Your task to perform on an android device: move a message to another label in the gmail app Image 0: 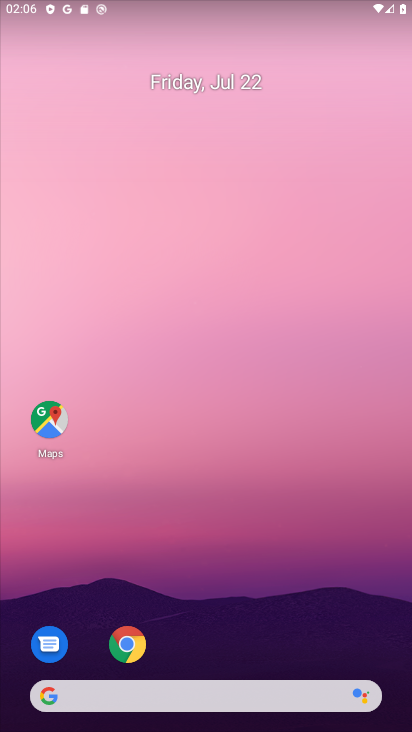
Step 0: drag from (184, 705) to (0, 42)
Your task to perform on an android device: move a message to another label in the gmail app Image 1: 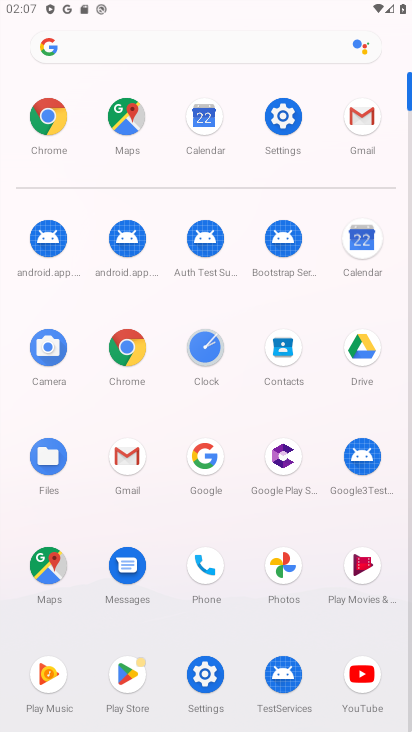
Step 1: click (362, 129)
Your task to perform on an android device: move a message to another label in the gmail app Image 2: 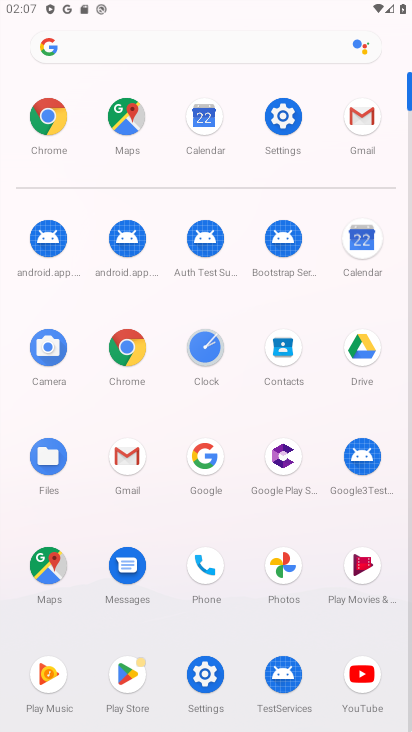
Step 2: click (362, 129)
Your task to perform on an android device: move a message to another label in the gmail app Image 3: 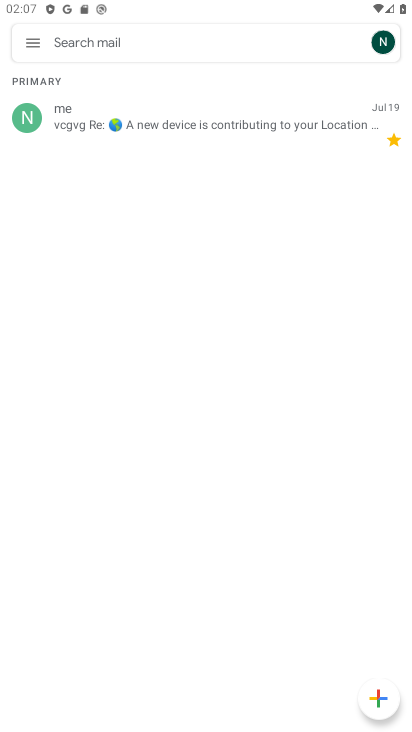
Step 3: click (161, 117)
Your task to perform on an android device: move a message to another label in the gmail app Image 4: 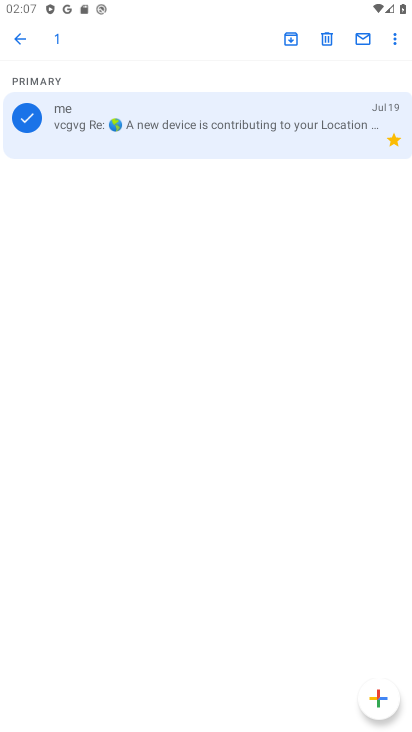
Step 4: click (397, 37)
Your task to perform on an android device: move a message to another label in the gmail app Image 5: 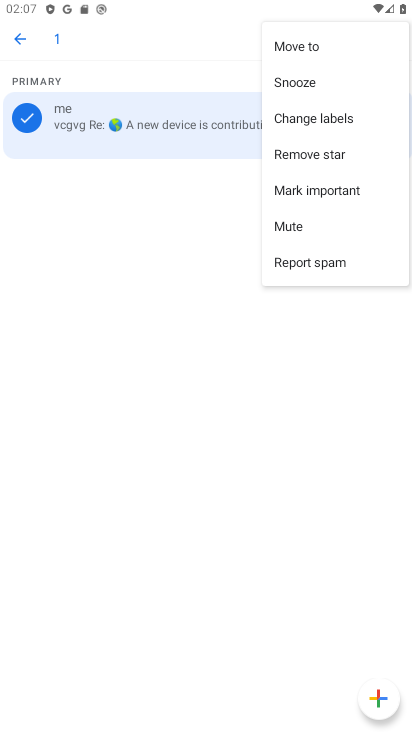
Step 5: click (342, 115)
Your task to perform on an android device: move a message to another label in the gmail app Image 6: 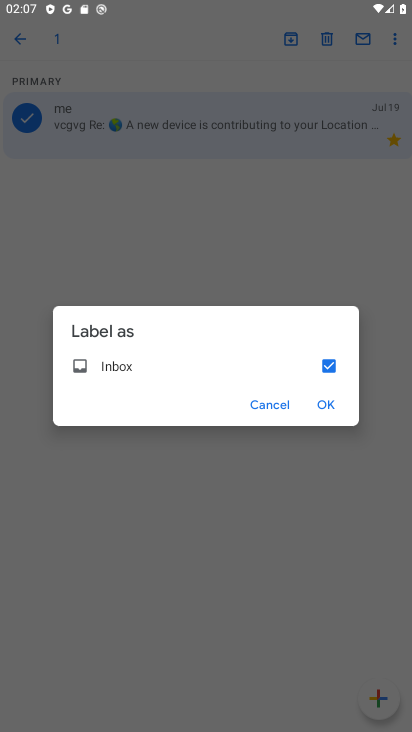
Step 6: click (326, 400)
Your task to perform on an android device: move a message to another label in the gmail app Image 7: 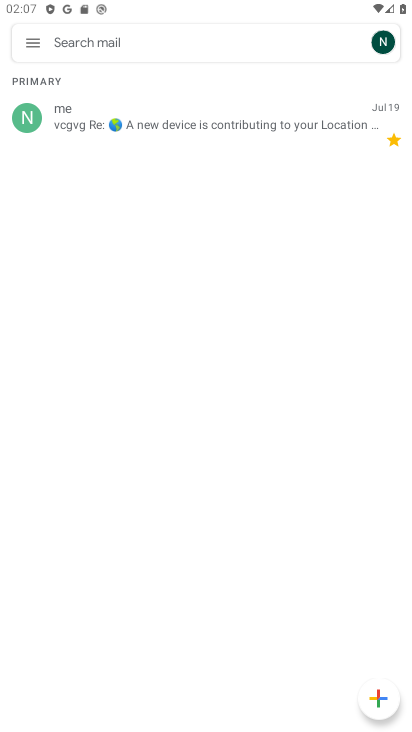
Step 7: task complete